Your task to perform on an android device: toggle notification dots Image 0: 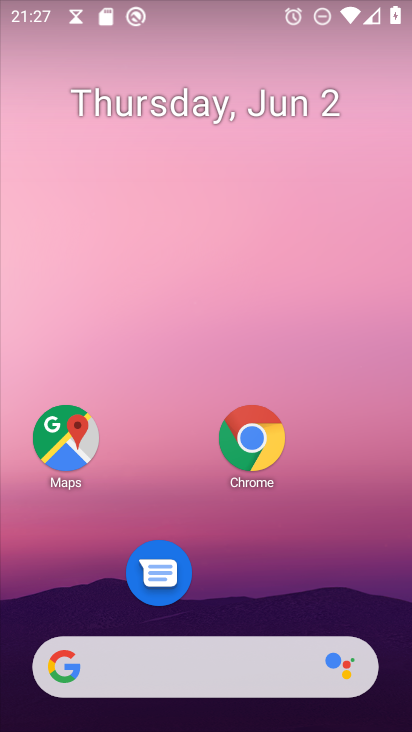
Step 0: press home button
Your task to perform on an android device: toggle notification dots Image 1: 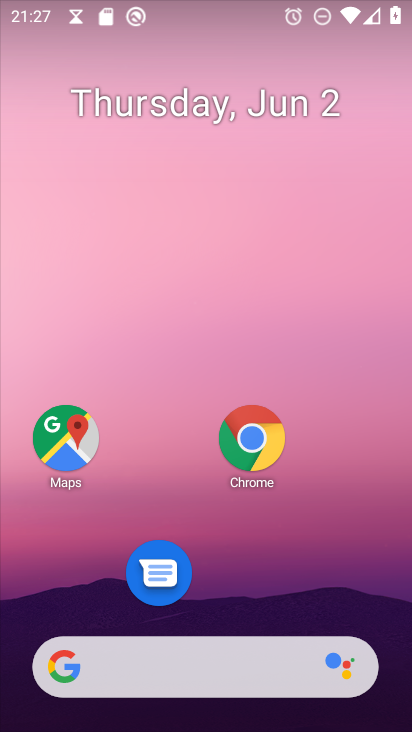
Step 1: drag from (217, 659) to (321, 79)
Your task to perform on an android device: toggle notification dots Image 2: 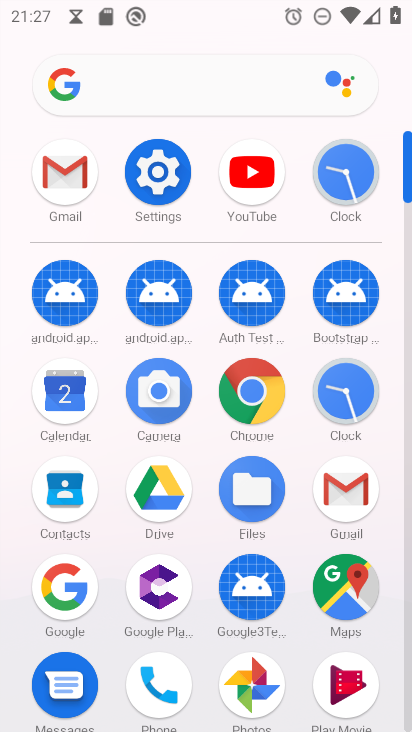
Step 2: click (171, 173)
Your task to perform on an android device: toggle notification dots Image 3: 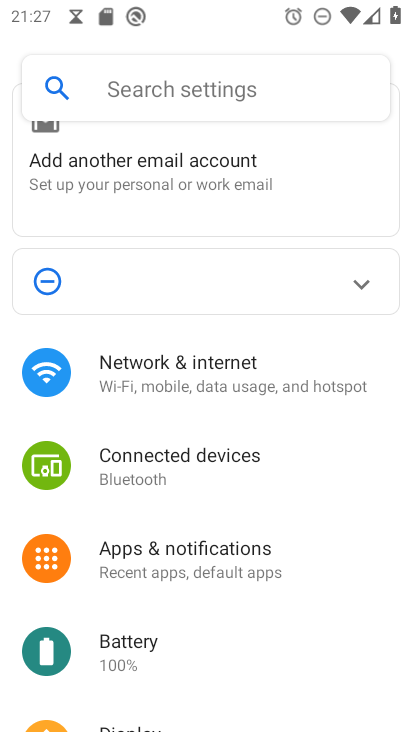
Step 3: click (239, 566)
Your task to perform on an android device: toggle notification dots Image 4: 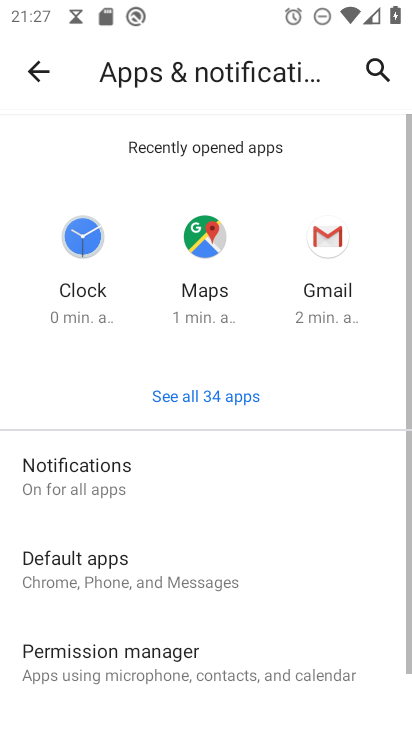
Step 4: drag from (269, 634) to (360, 155)
Your task to perform on an android device: toggle notification dots Image 5: 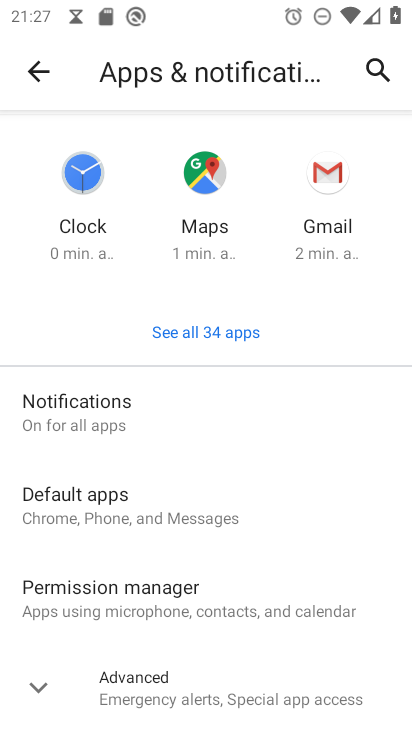
Step 5: click (114, 402)
Your task to perform on an android device: toggle notification dots Image 6: 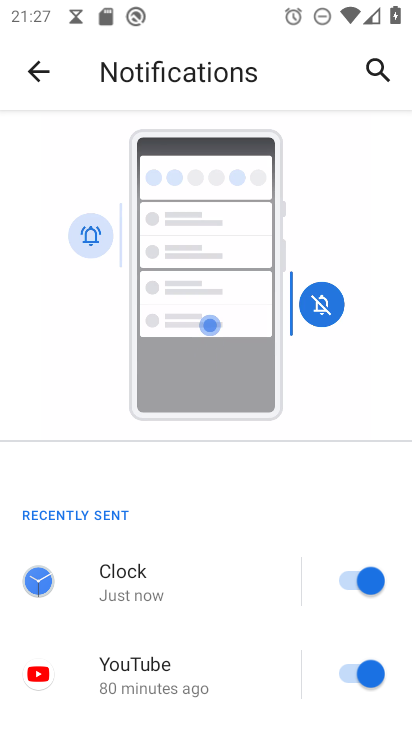
Step 6: drag from (223, 636) to (345, 67)
Your task to perform on an android device: toggle notification dots Image 7: 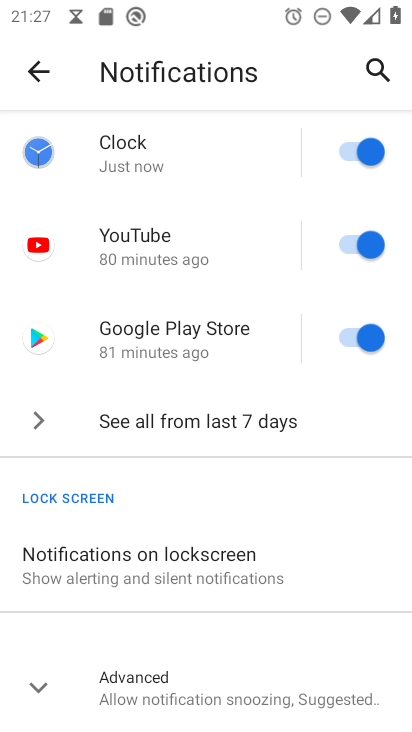
Step 7: drag from (212, 648) to (287, 109)
Your task to perform on an android device: toggle notification dots Image 8: 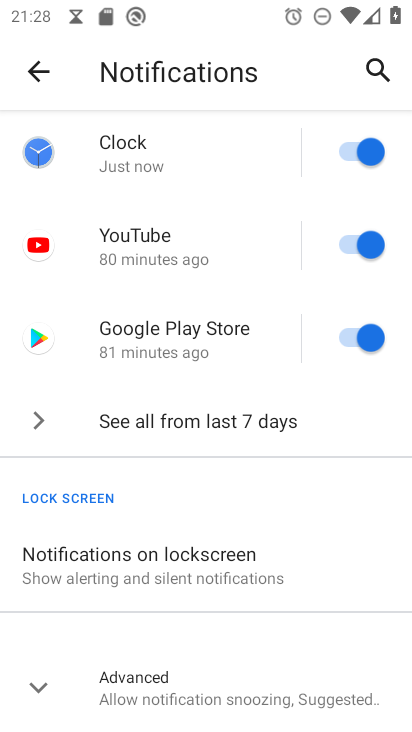
Step 8: click (142, 677)
Your task to perform on an android device: toggle notification dots Image 9: 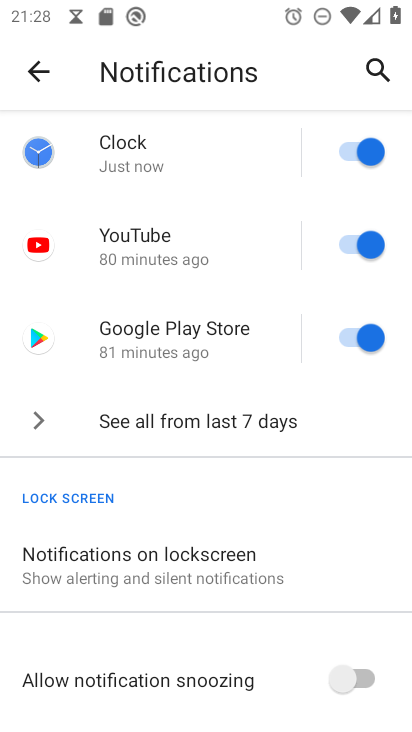
Step 9: drag from (223, 629) to (317, 211)
Your task to perform on an android device: toggle notification dots Image 10: 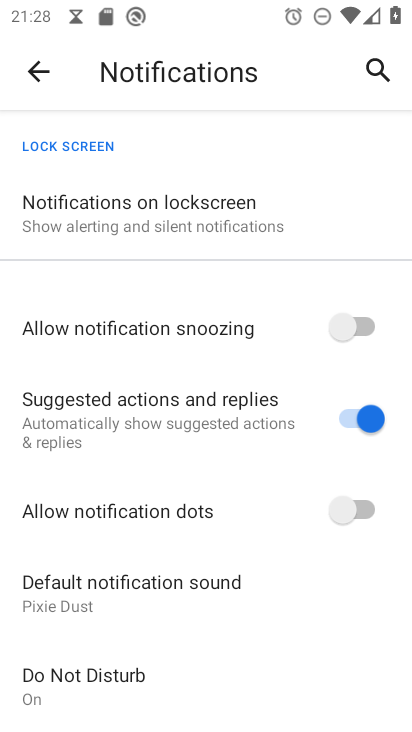
Step 10: click (362, 516)
Your task to perform on an android device: toggle notification dots Image 11: 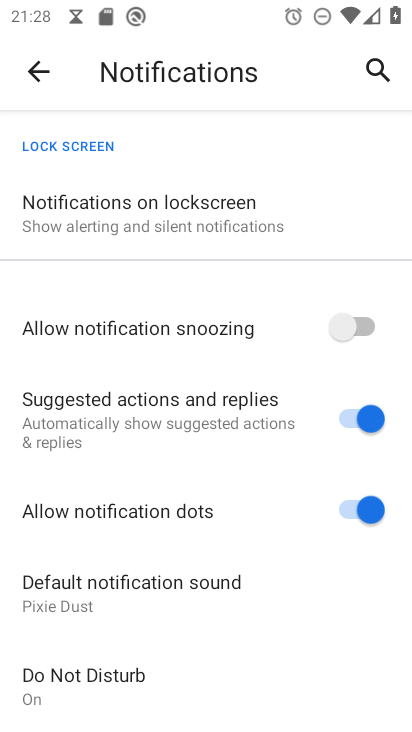
Step 11: task complete